Your task to perform on an android device: turn smart compose on in the gmail app Image 0: 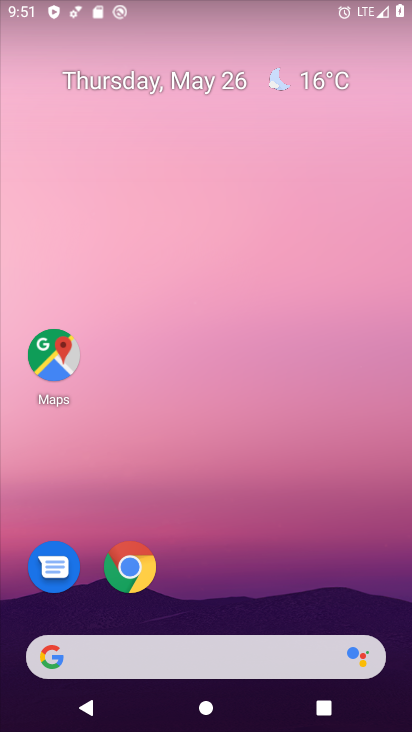
Step 0: drag from (398, 708) to (348, 113)
Your task to perform on an android device: turn smart compose on in the gmail app Image 1: 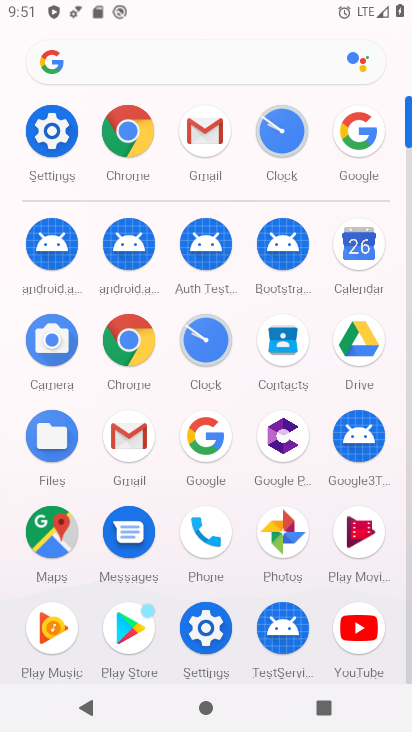
Step 1: click (110, 432)
Your task to perform on an android device: turn smart compose on in the gmail app Image 2: 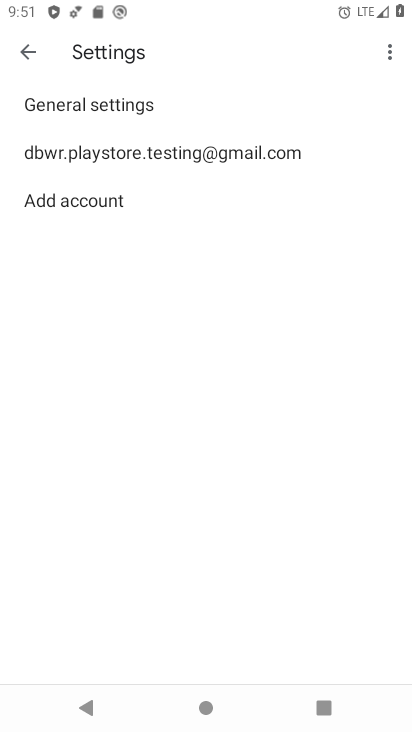
Step 2: click (58, 158)
Your task to perform on an android device: turn smart compose on in the gmail app Image 3: 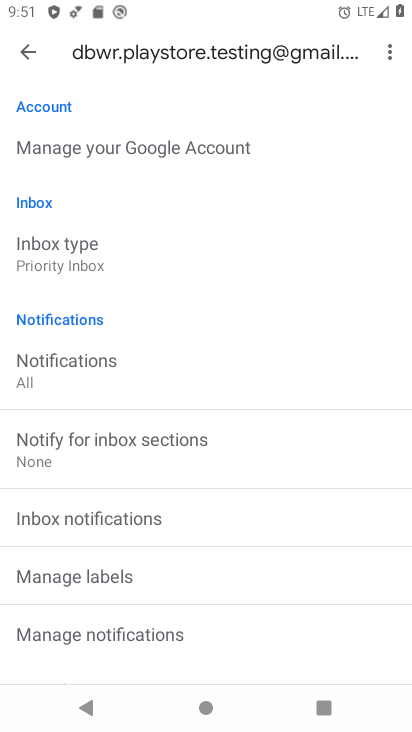
Step 3: task complete